Your task to perform on an android device: toggle priority inbox in the gmail app Image 0: 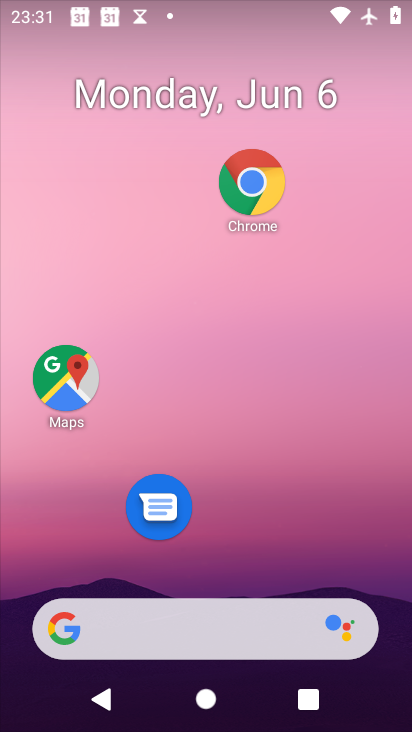
Step 0: drag from (201, 562) to (261, 307)
Your task to perform on an android device: toggle priority inbox in the gmail app Image 1: 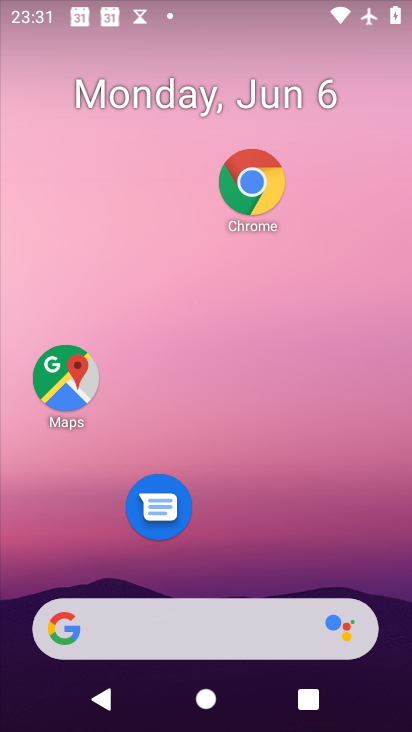
Step 1: drag from (194, 590) to (226, 319)
Your task to perform on an android device: toggle priority inbox in the gmail app Image 2: 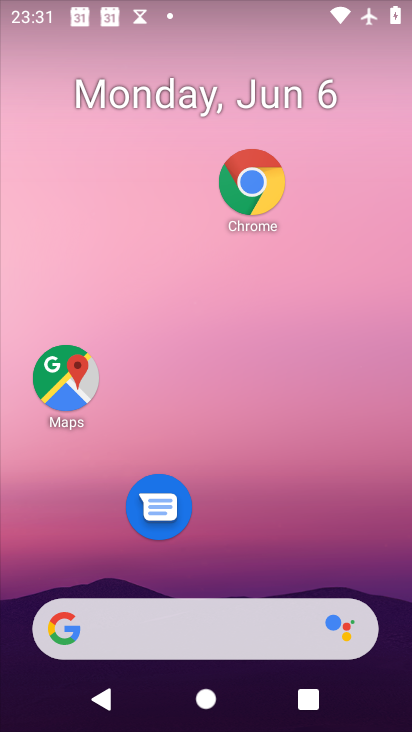
Step 2: drag from (215, 514) to (238, 343)
Your task to perform on an android device: toggle priority inbox in the gmail app Image 3: 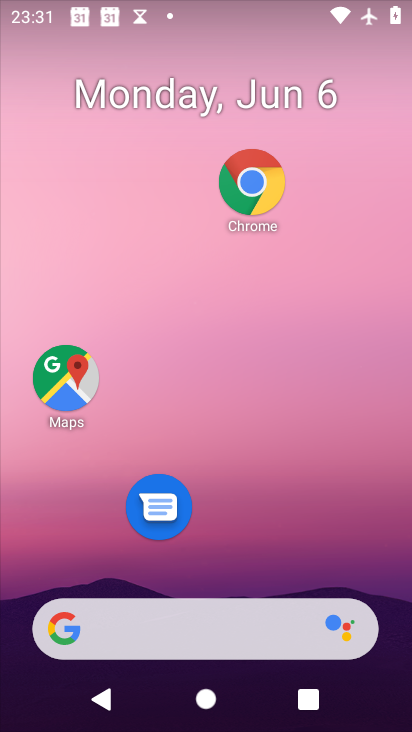
Step 3: drag from (237, 653) to (267, 355)
Your task to perform on an android device: toggle priority inbox in the gmail app Image 4: 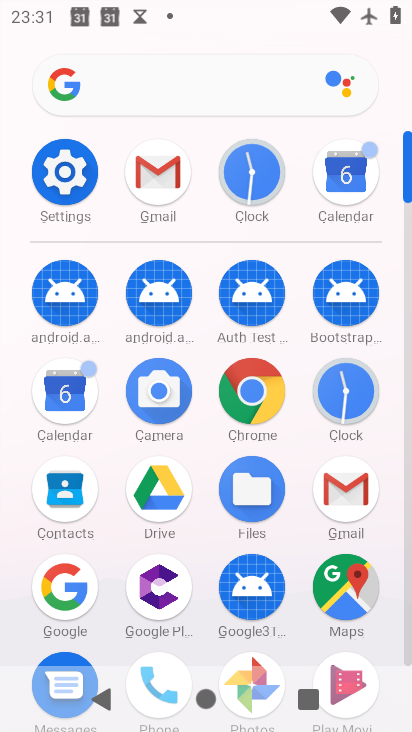
Step 4: click (345, 496)
Your task to perform on an android device: toggle priority inbox in the gmail app Image 5: 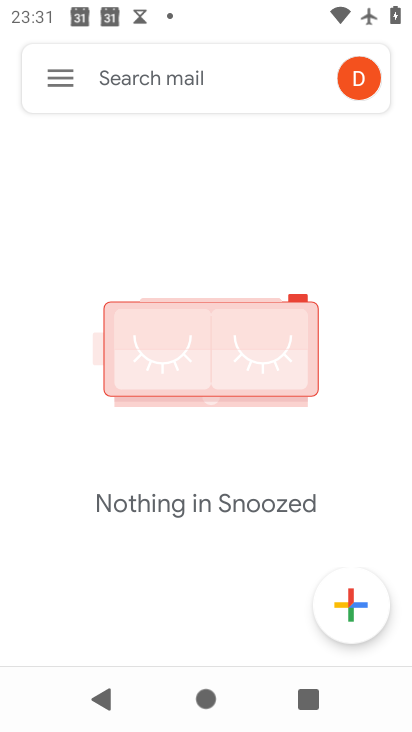
Step 5: click (47, 82)
Your task to perform on an android device: toggle priority inbox in the gmail app Image 6: 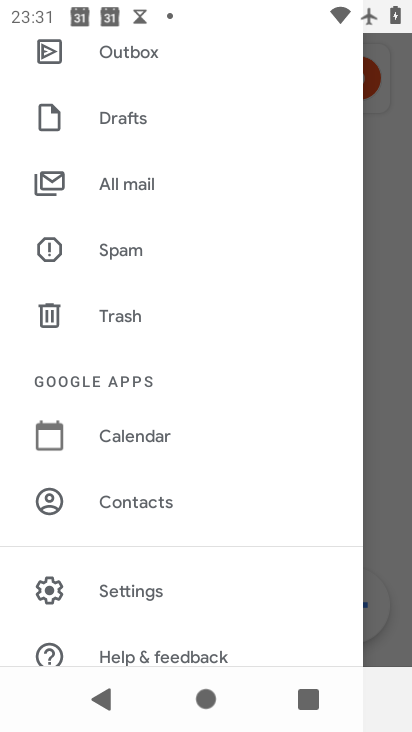
Step 6: click (159, 587)
Your task to perform on an android device: toggle priority inbox in the gmail app Image 7: 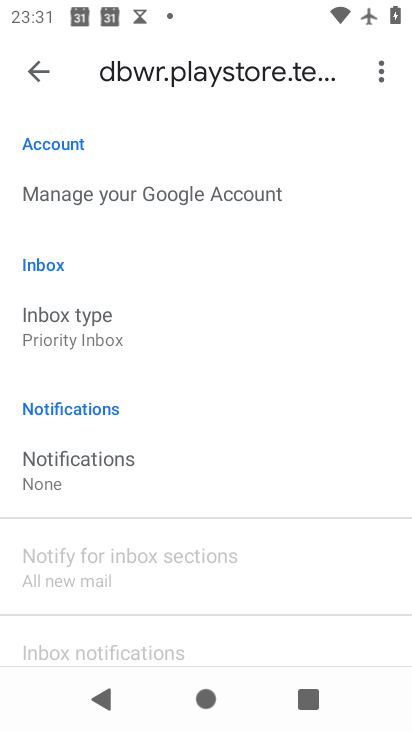
Step 7: click (102, 316)
Your task to perform on an android device: toggle priority inbox in the gmail app Image 8: 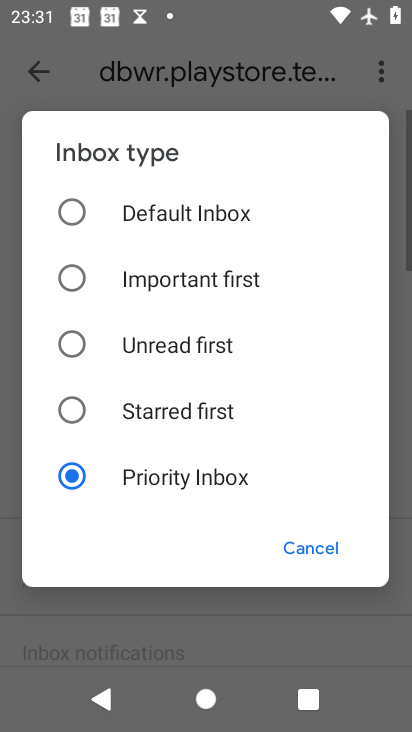
Step 8: click (152, 216)
Your task to perform on an android device: toggle priority inbox in the gmail app Image 9: 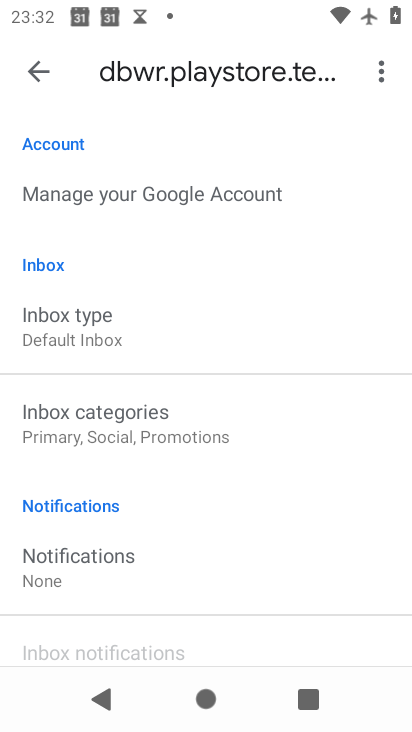
Step 9: task complete